Your task to perform on an android device: empty trash in the gmail app Image 0: 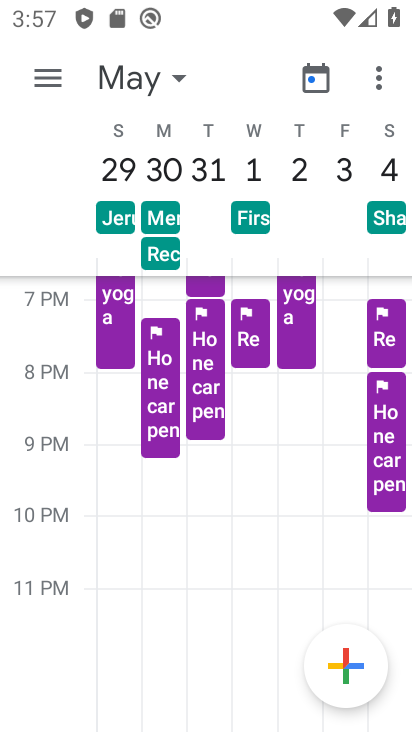
Step 0: press home button
Your task to perform on an android device: empty trash in the gmail app Image 1: 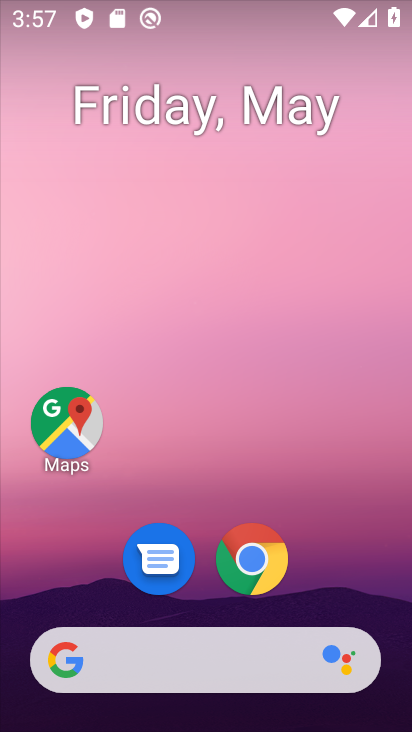
Step 1: drag from (332, 573) to (314, 326)
Your task to perform on an android device: empty trash in the gmail app Image 2: 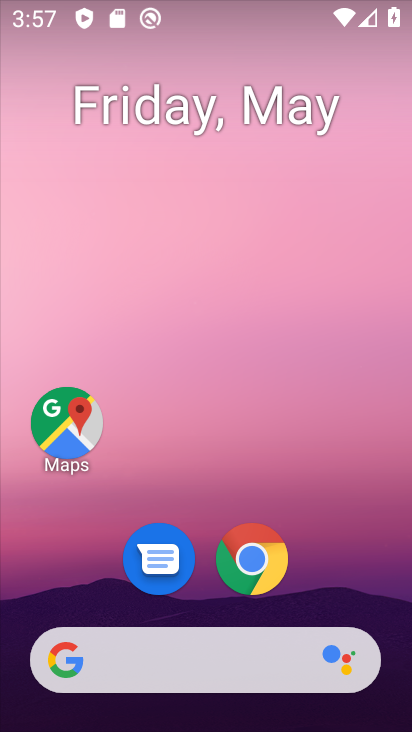
Step 2: drag from (292, 594) to (300, 408)
Your task to perform on an android device: empty trash in the gmail app Image 3: 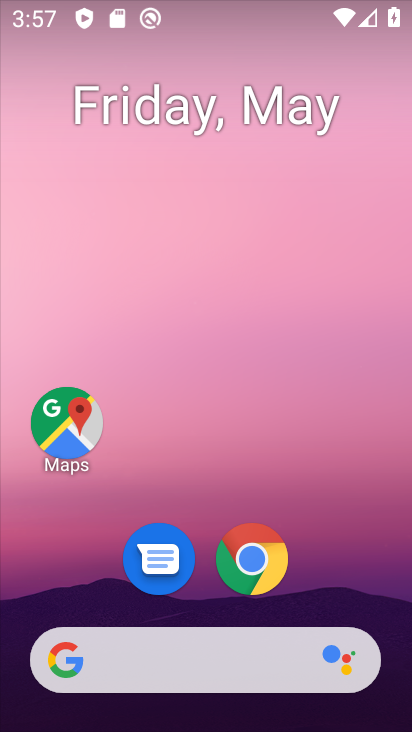
Step 3: drag from (298, 597) to (293, 245)
Your task to perform on an android device: empty trash in the gmail app Image 4: 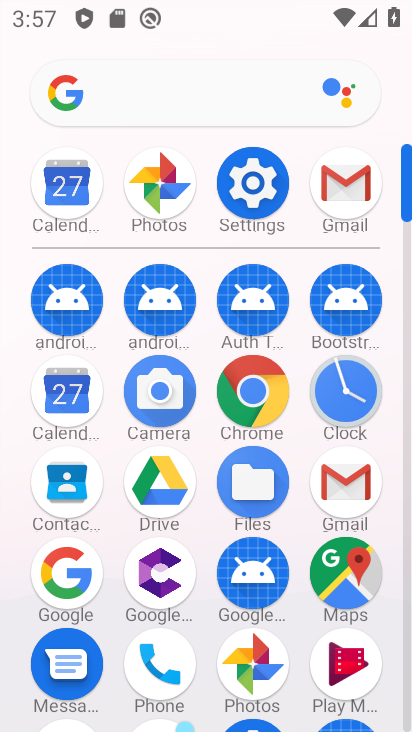
Step 4: click (334, 177)
Your task to perform on an android device: empty trash in the gmail app Image 5: 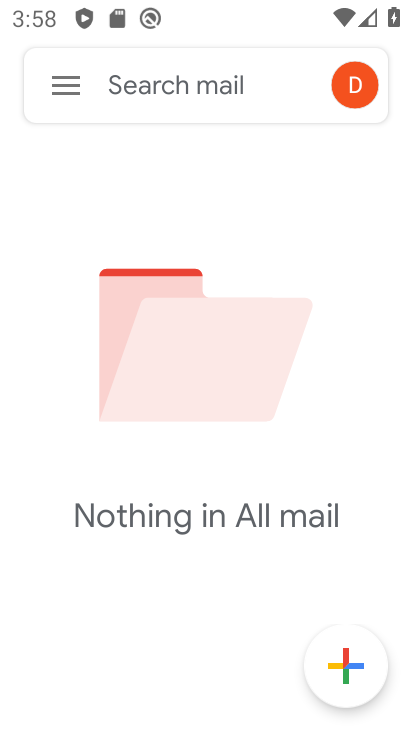
Step 5: click (59, 96)
Your task to perform on an android device: empty trash in the gmail app Image 6: 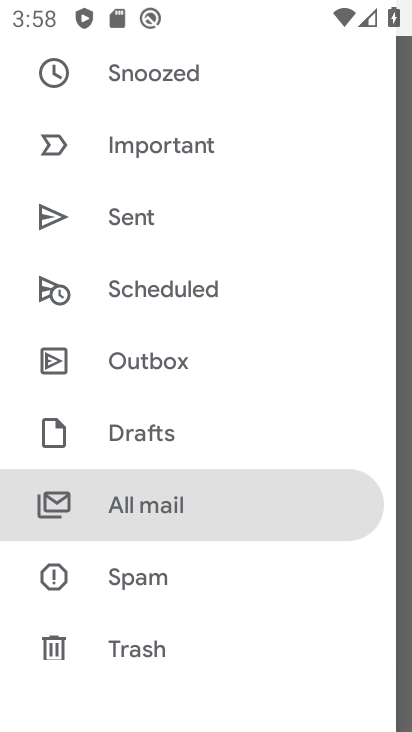
Step 6: click (115, 632)
Your task to perform on an android device: empty trash in the gmail app Image 7: 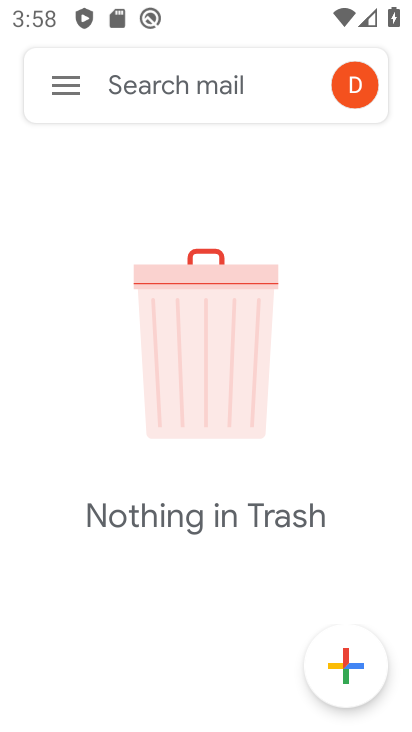
Step 7: task complete